Your task to perform on an android device: Show me popular videos on Youtube Image 0: 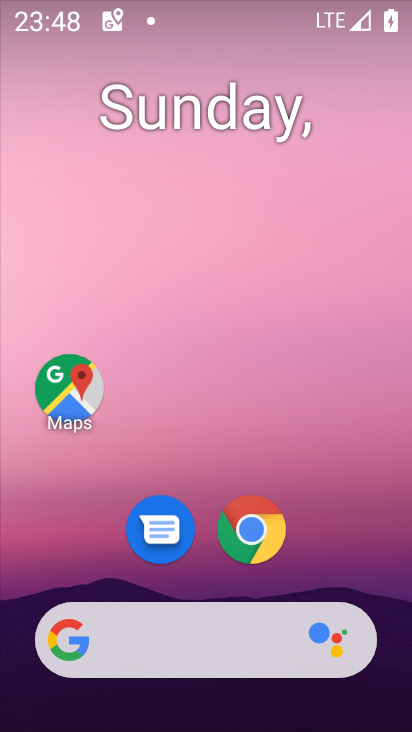
Step 0: drag from (303, 378) to (324, 128)
Your task to perform on an android device: Show me popular videos on Youtube Image 1: 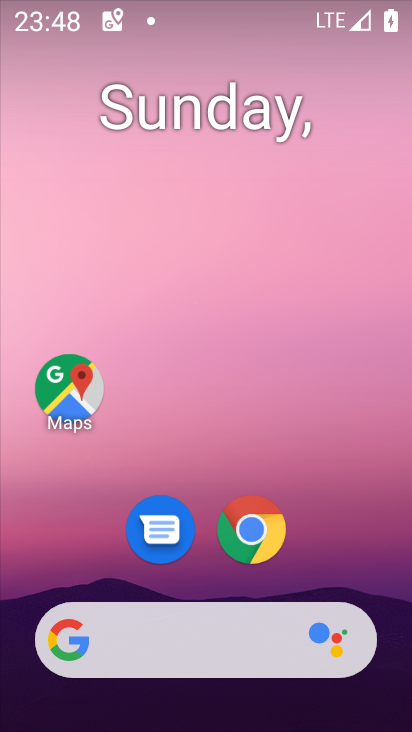
Step 1: drag from (325, 567) to (276, 93)
Your task to perform on an android device: Show me popular videos on Youtube Image 2: 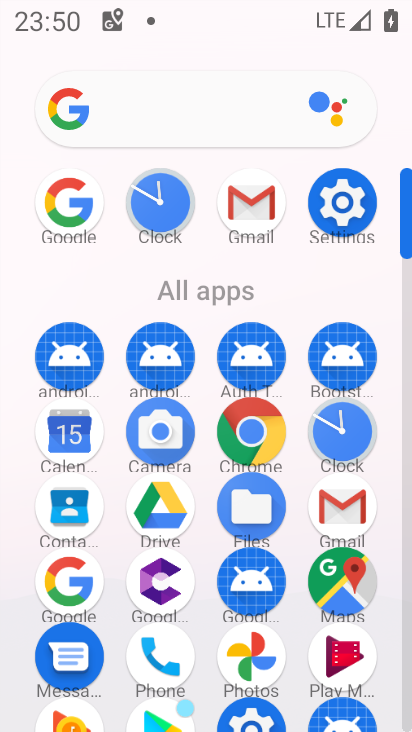
Step 2: drag from (255, 648) to (248, 247)
Your task to perform on an android device: Show me popular videos on Youtube Image 3: 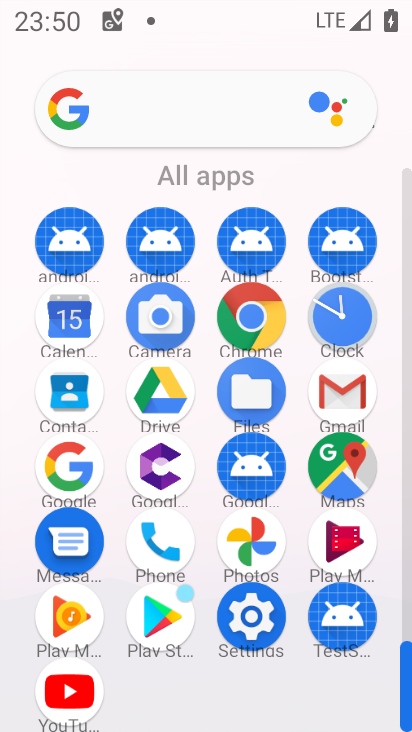
Step 3: click (67, 686)
Your task to perform on an android device: Show me popular videos on Youtube Image 4: 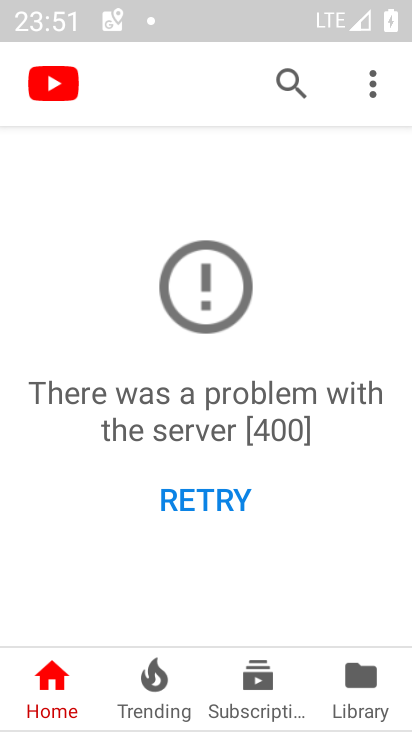
Step 4: click (359, 686)
Your task to perform on an android device: Show me popular videos on Youtube Image 5: 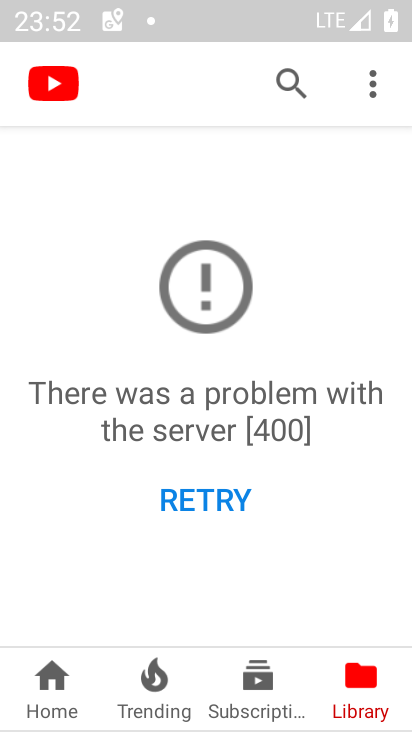
Step 5: task complete